Your task to perform on an android device: turn off location Image 0: 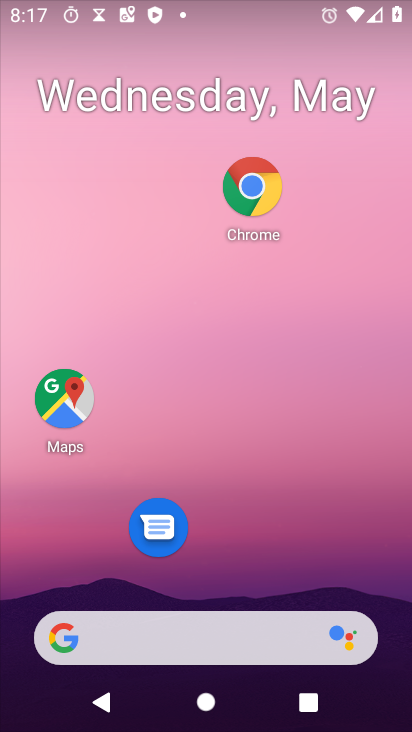
Step 0: drag from (262, 519) to (292, 80)
Your task to perform on an android device: turn off location Image 1: 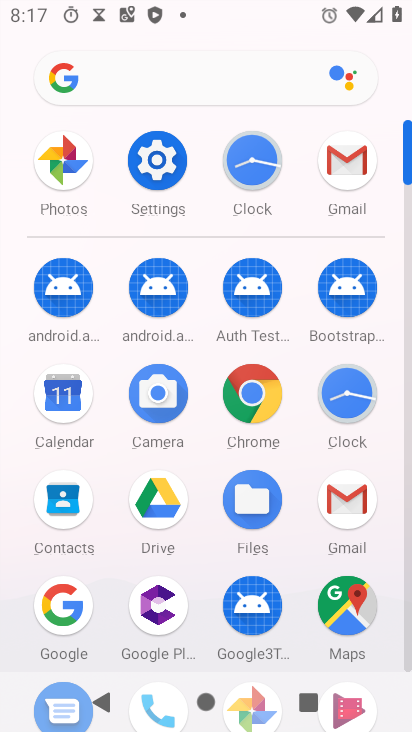
Step 1: click (156, 168)
Your task to perform on an android device: turn off location Image 2: 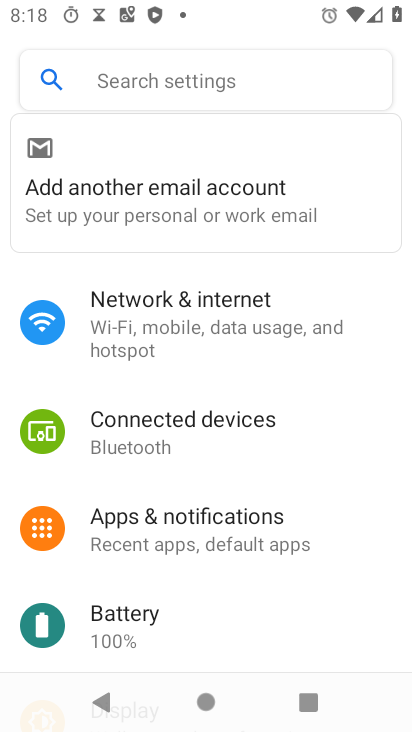
Step 2: drag from (337, 623) to (349, 246)
Your task to perform on an android device: turn off location Image 3: 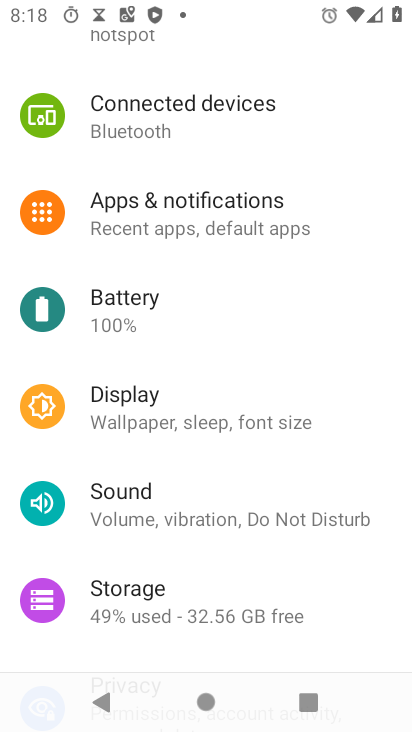
Step 3: drag from (350, 613) to (369, 234)
Your task to perform on an android device: turn off location Image 4: 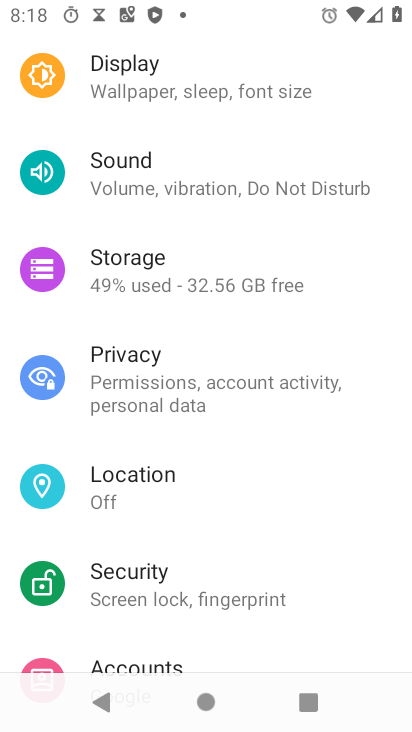
Step 4: click (111, 478)
Your task to perform on an android device: turn off location Image 5: 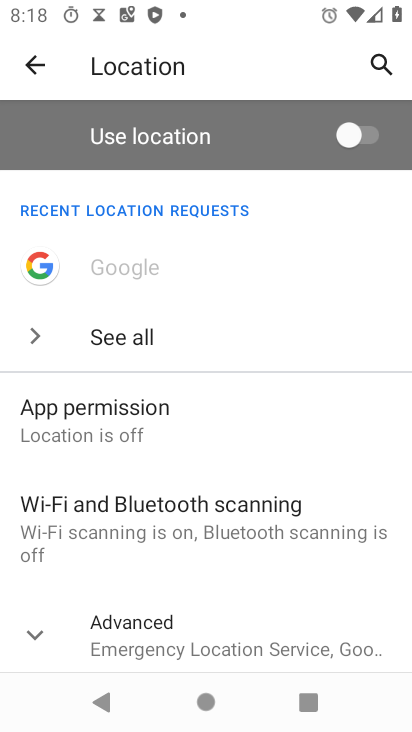
Step 5: task complete